Your task to perform on an android device: Go to privacy settings Image 0: 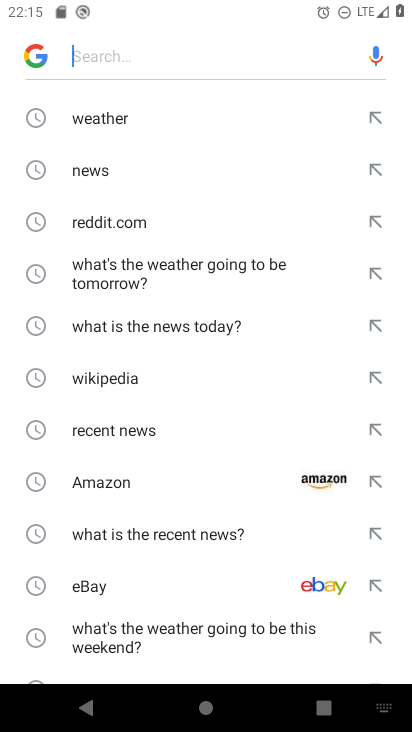
Step 0: press home button
Your task to perform on an android device: Go to privacy settings Image 1: 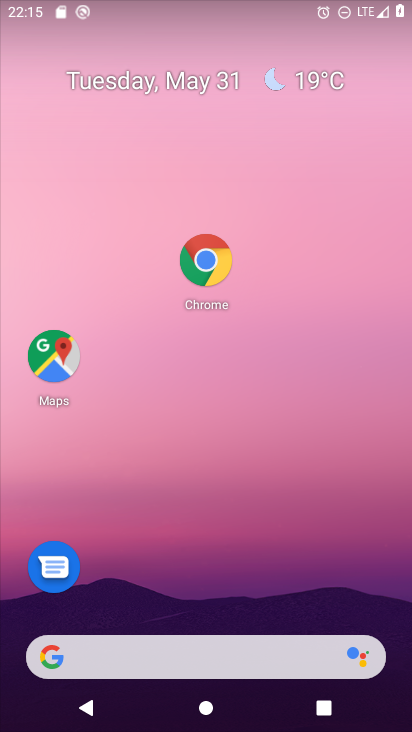
Step 1: drag from (210, 613) to (253, 218)
Your task to perform on an android device: Go to privacy settings Image 2: 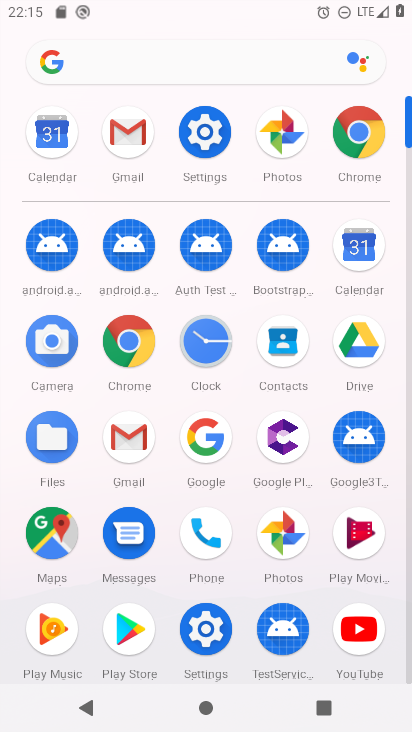
Step 2: click (203, 119)
Your task to perform on an android device: Go to privacy settings Image 3: 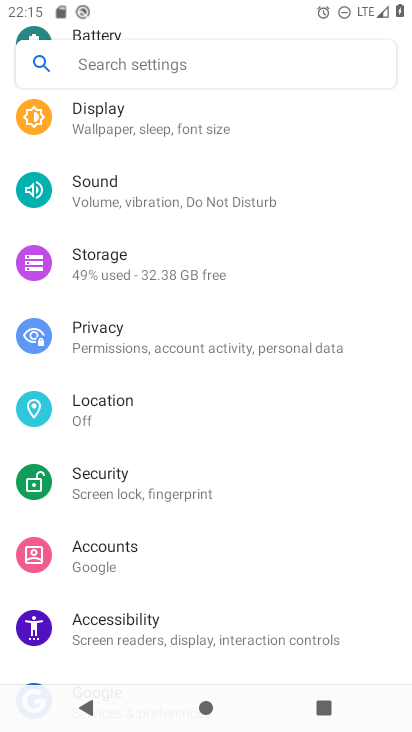
Step 3: click (131, 344)
Your task to perform on an android device: Go to privacy settings Image 4: 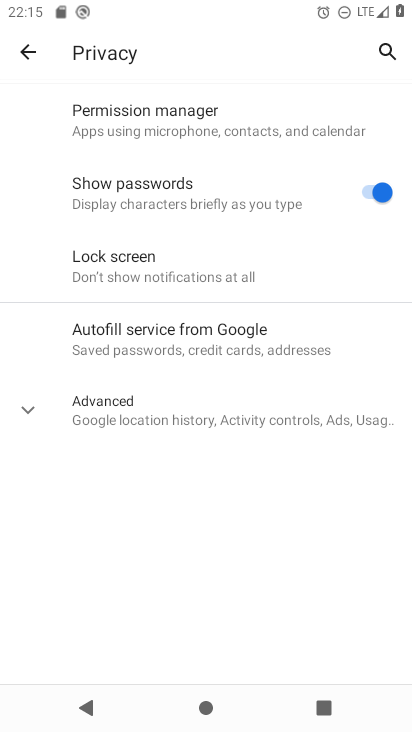
Step 4: click (93, 401)
Your task to perform on an android device: Go to privacy settings Image 5: 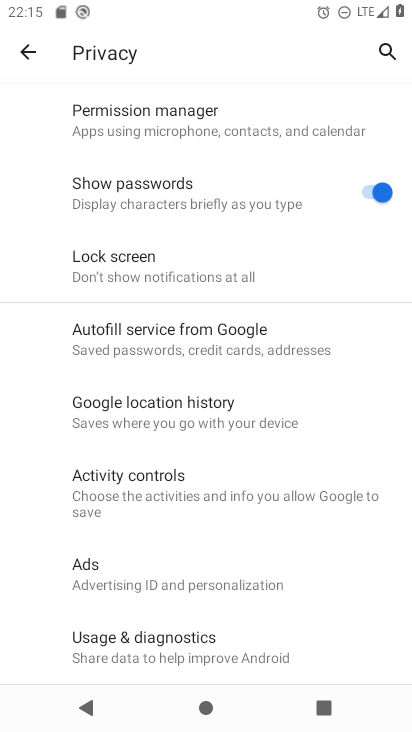
Step 5: task complete